Your task to perform on an android device: open the mobile data screen to see how much data has been used Image 0: 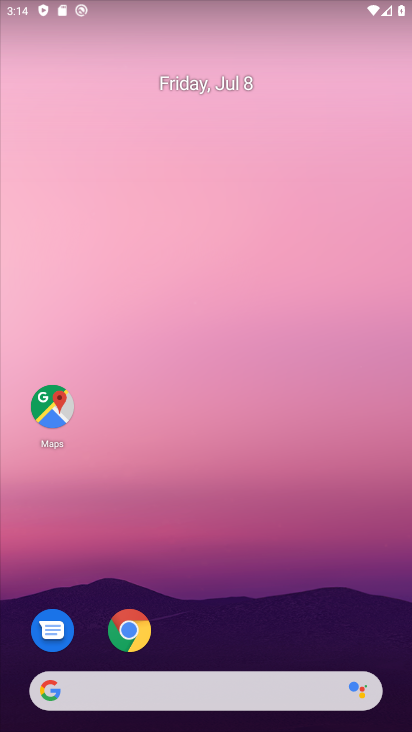
Step 0: drag from (243, 637) to (348, 121)
Your task to perform on an android device: open the mobile data screen to see how much data has been used Image 1: 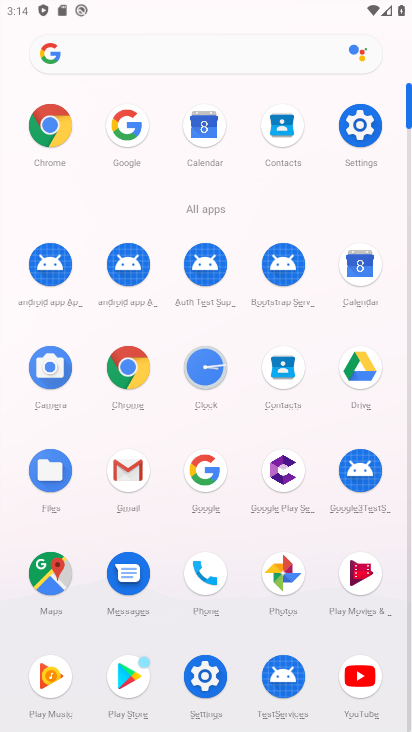
Step 1: click (360, 123)
Your task to perform on an android device: open the mobile data screen to see how much data has been used Image 2: 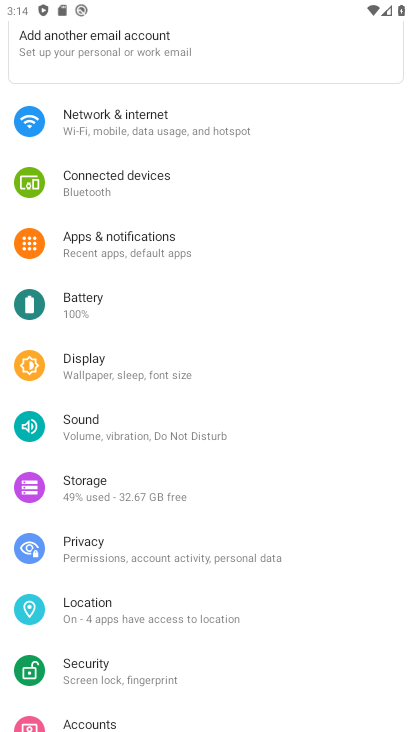
Step 2: click (203, 131)
Your task to perform on an android device: open the mobile data screen to see how much data has been used Image 3: 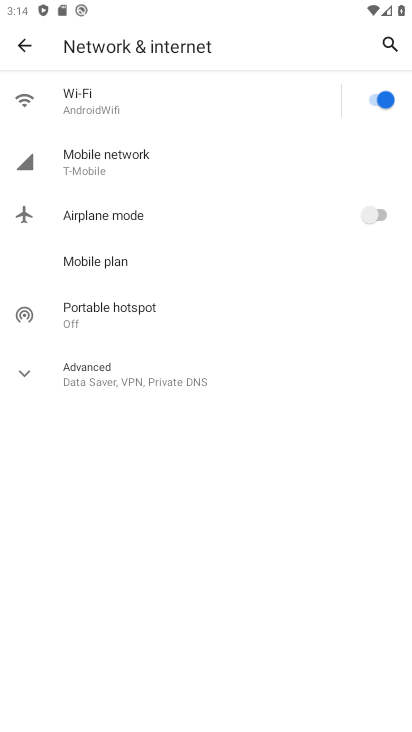
Step 3: click (138, 160)
Your task to perform on an android device: open the mobile data screen to see how much data has been used Image 4: 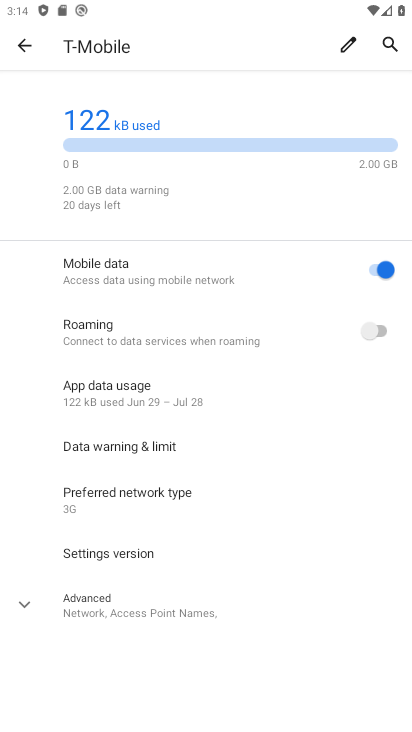
Step 4: task complete